Your task to perform on an android device: toggle wifi Image 0: 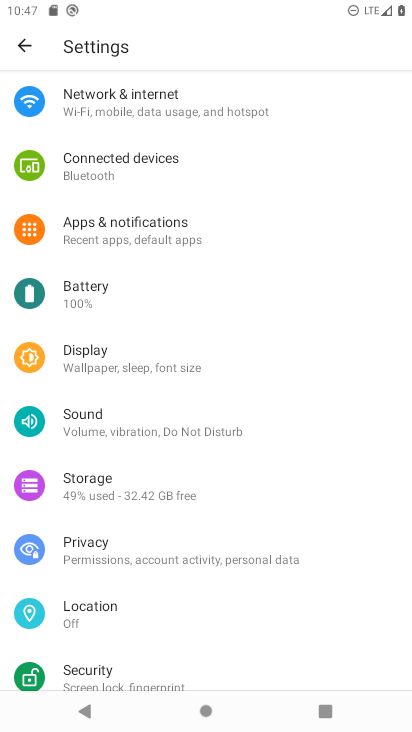
Step 0: click (262, 102)
Your task to perform on an android device: toggle wifi Image 1: 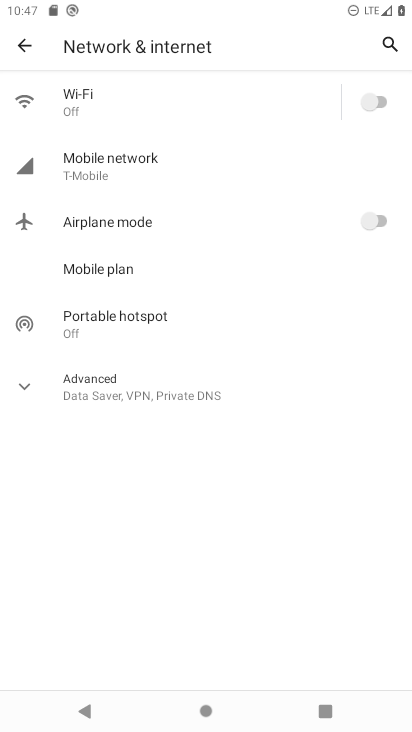
Step 1: click (379, 95)
Your task to perform on an android device: toggle wifi Image 2: 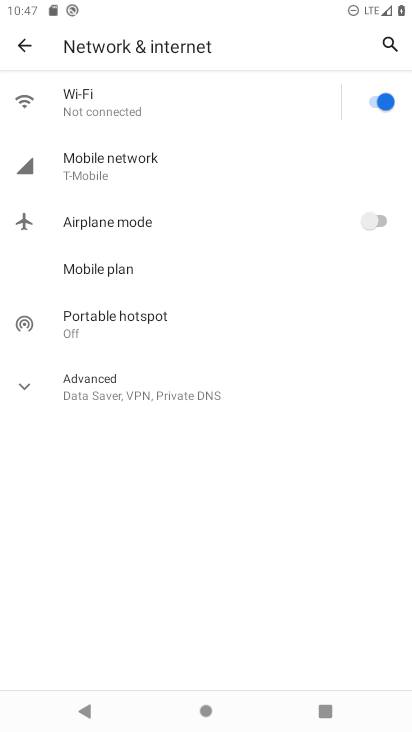
Step 2: task complete